Your task to perform on an android device: move a message to another label in the gmail app Image 0: 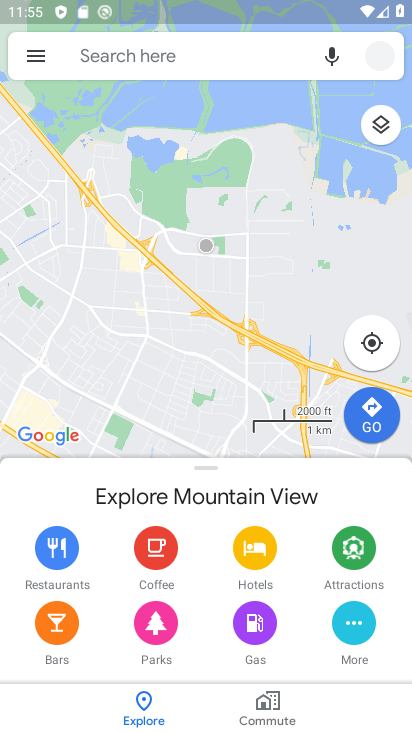
Step 0: press home button
Your task to perform on an android device: move a message to another label in the gmail app Image 1: 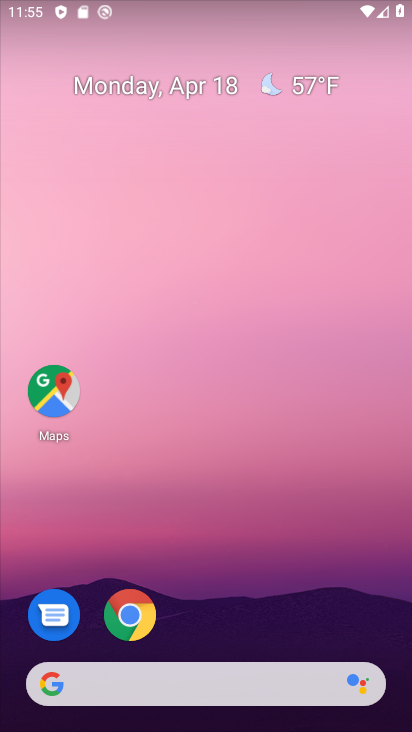
Step 1: drag from (216, 619) to (221, 238)
Your task to perform on an android device: move a message to another label in the gmail app Image 2: 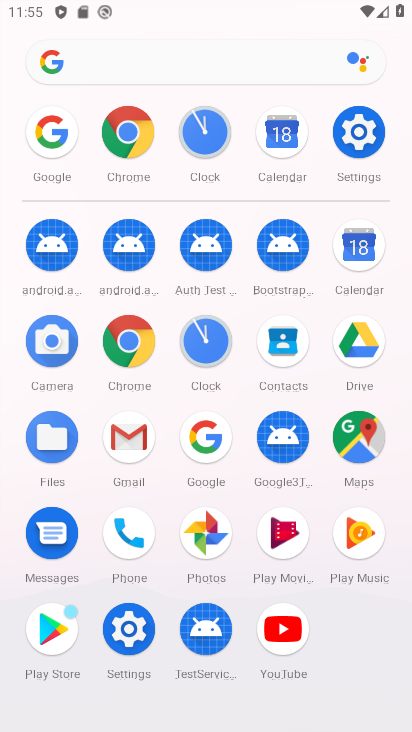
Step 2: click (118, 443)
Your task to perform on an android device: move a message to another label in the gmail app Image 3: 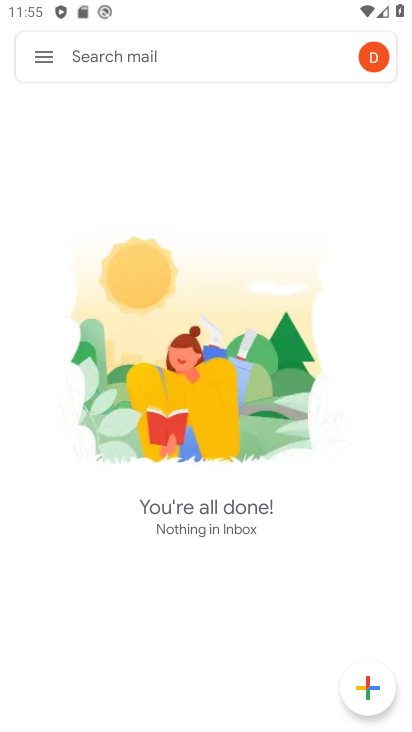
Step 3: click (46, 63)
Your task to perform on an android device: move a message to another label in the gmail app Image 4: 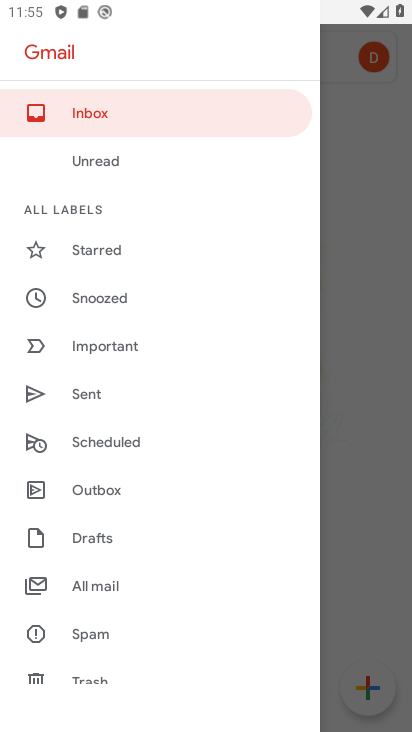
Step 4: click (123, 590)
Your task to perform on an android device: move a message to another label in the gmail app Image 5: 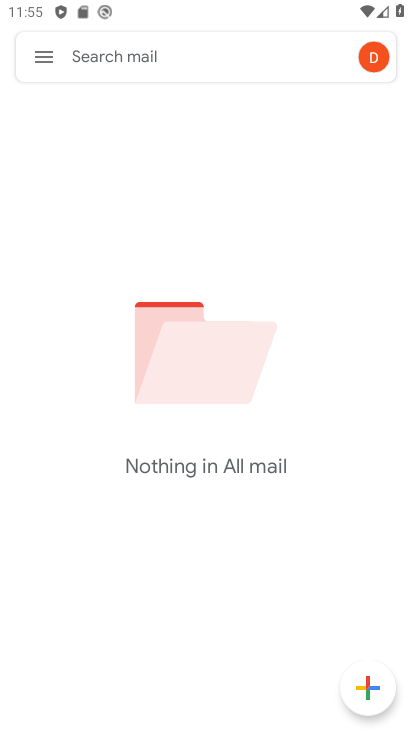
Step 5: click (49, 59)
Your task to perform on an android device: move a message to another label in the gmail app Image 6: 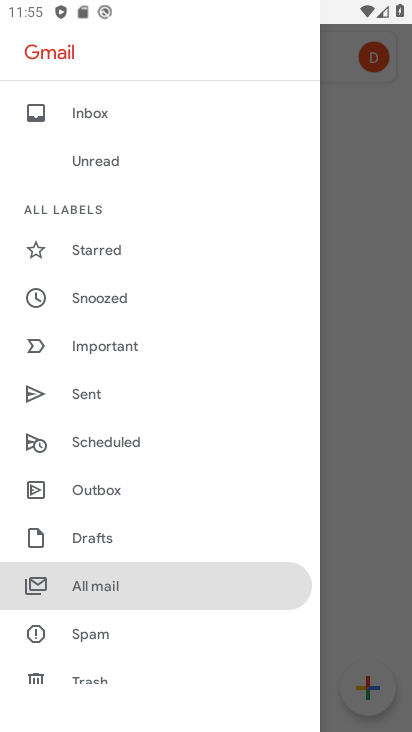
Step 6: click (125, 595)
Your task to perform on an android device: move a message to another label in the gmail app Image 7: 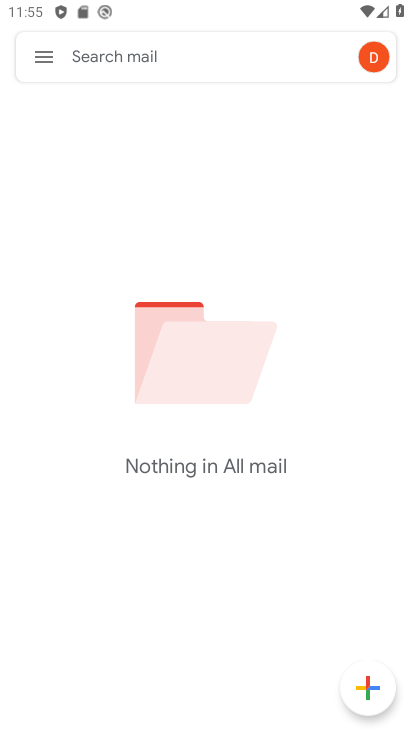
Step 7: task complete